Your task to perform on an android device: Open Chrome and go to the settings page Image 0: 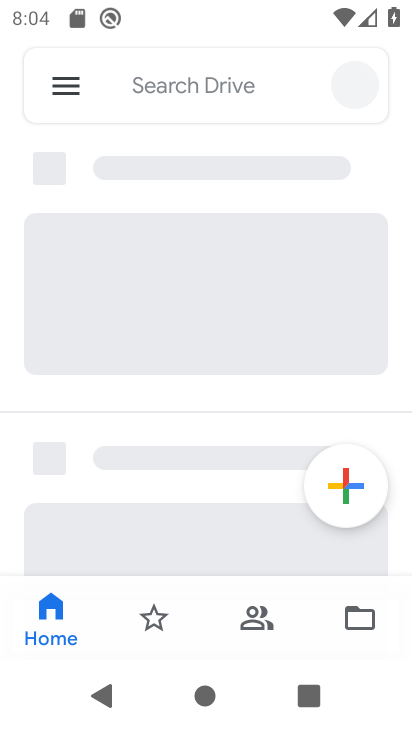
Step 0: press back button
Your task to perform on an android device: Open Chrome and go to the settings page Image 1: 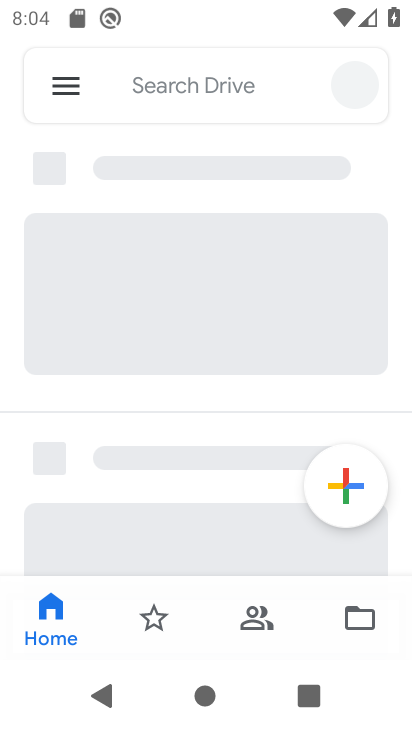
Step 1: press home button
Your task to perform on an android device: Open Chrome and go to the settings page Image 2: 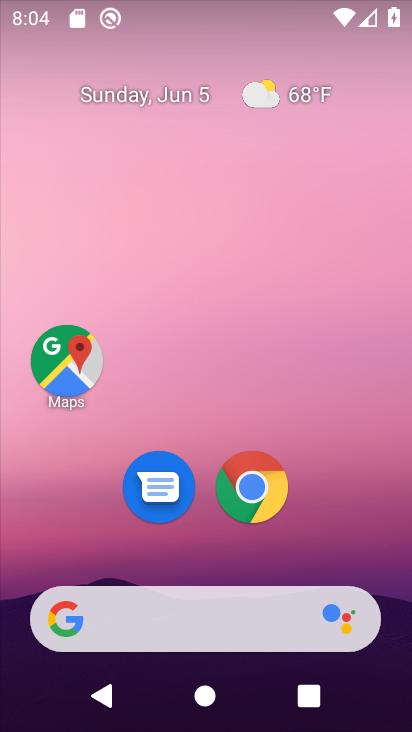
Step 2: click (257, 479)
Your task to perform on an android device: Open Chrome and go to the settings page Image 3: 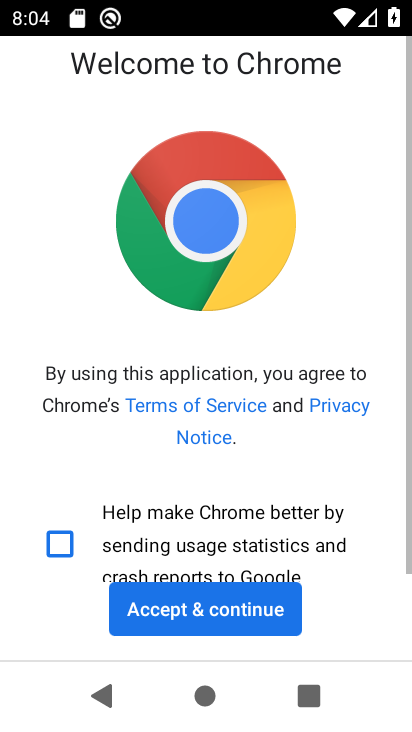
Step 3: click (165, 619)
Your task to perform on an android device: Open Chrome and go to the settings page Image 4: 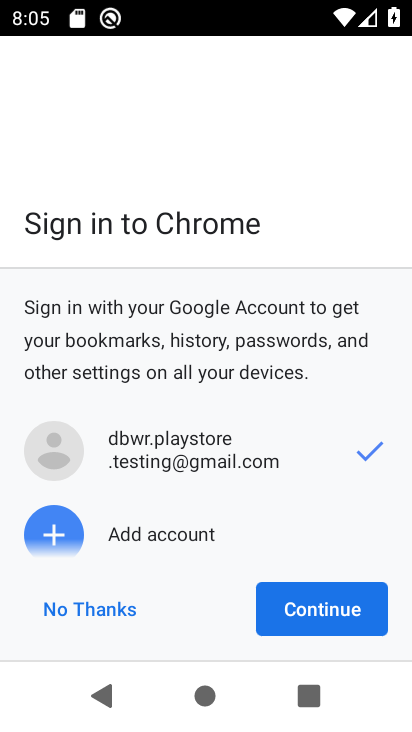
Step 4: click (361, 614)
Your task to perform on an android device: Open Chrome and go to the settings page Image 5: 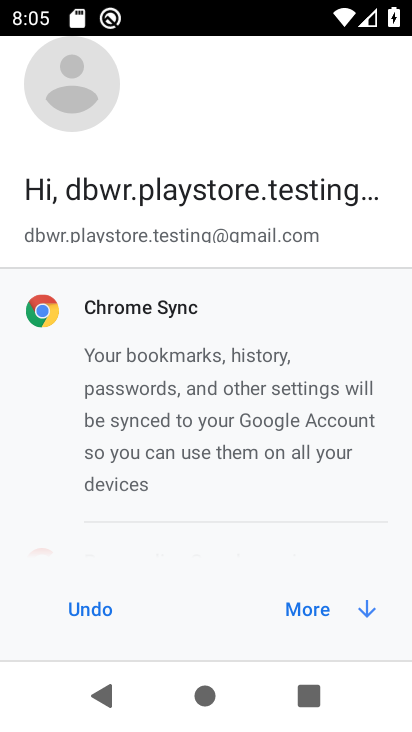
Step 5: click (297, 609)
Your task to perform on an android device: Open Chrome and go to the settings page Image 6: 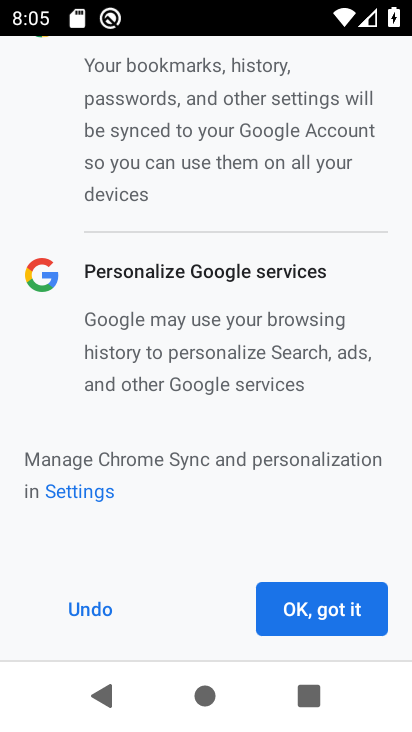
Step 6: click (302, 616)
Your task to perform on an android device: Open Chrome and go to the settings page Image 7: 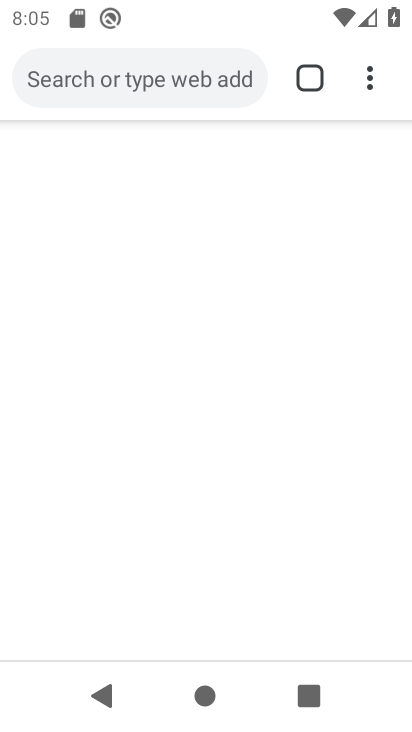
Step 7: task complete